Your task to perform on an android device: Open Reddit.com Image 0: 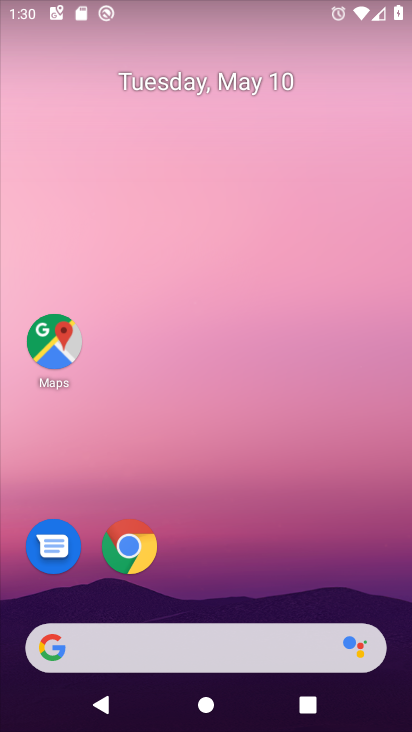
Step 0: click (121, 560)
Your task to perform on an android device: Open Reddit.com Image 1: 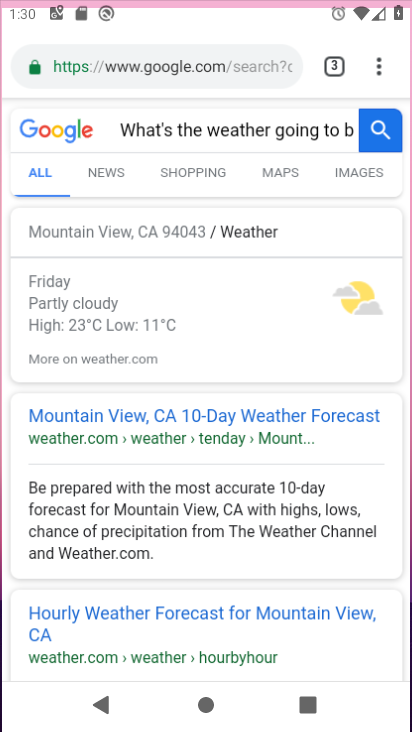
Step 1: click (121, 560)
Your task to perform on an android device: Open Reddit.com Image 2: 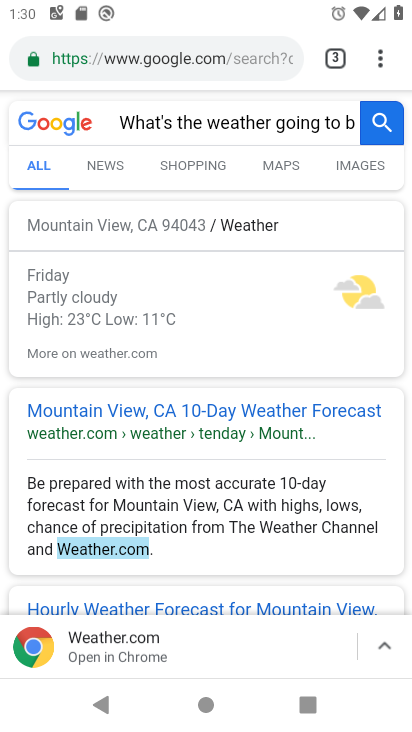
Step 2: click (260, 57)
Your task to perform on an android device: Open Reddit.com Image 3: 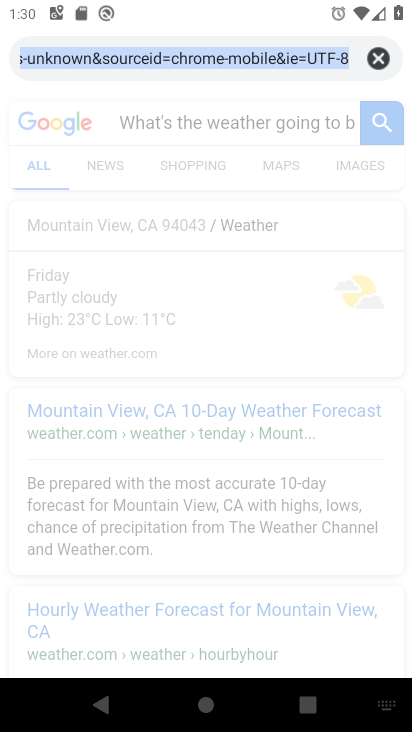
Step 3: click (369, 57)
Your task to perform on an android device: Open Reddit.com Image 4: 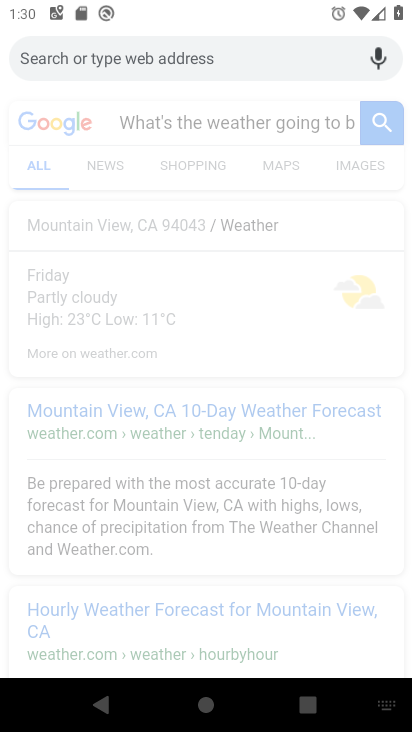
Step 4: type "Reddit.com"
Your task to perform on an android device: Open Reddit.com Image 5: 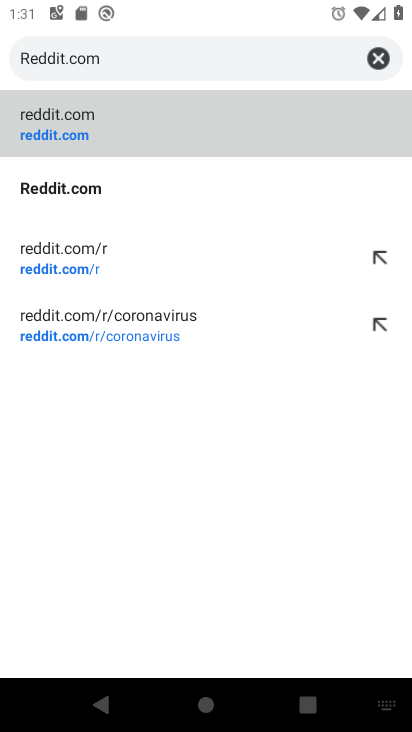
Step 5: click (39, 145)
Your task to perform on an android device: Open Reddit.com Image 6: 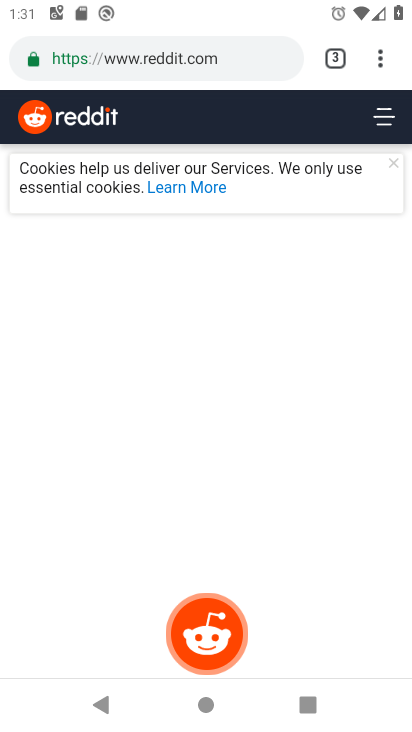
Step 6: task complete